Your task to perform on an android device: What's a good restaurant in Los Angeles? Image 0: 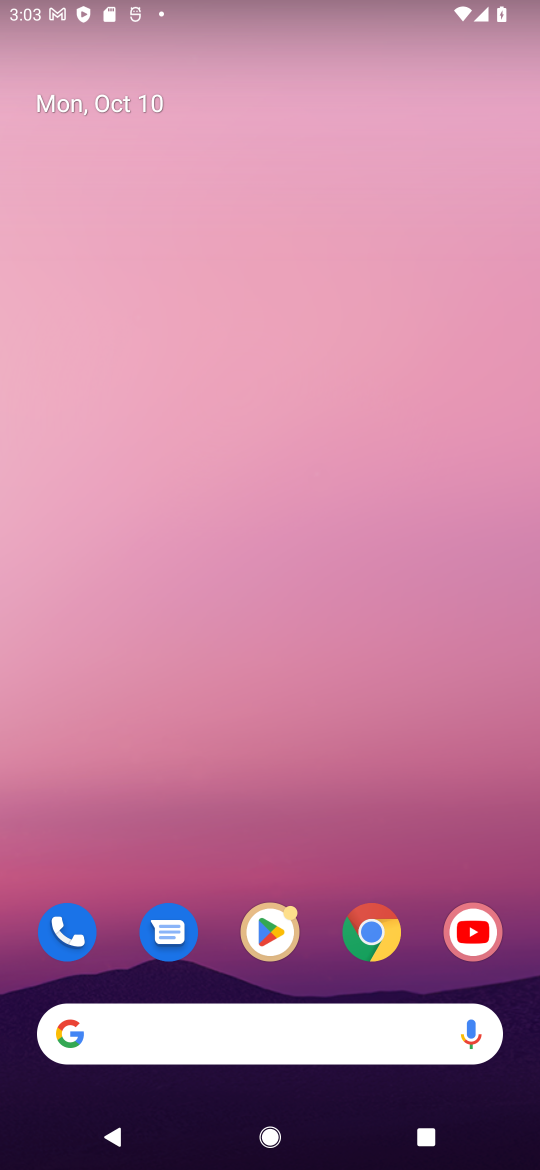
Step 0: click (340, 1029)
Your task to perform on an android device: What's a good restaurant in Los Angeles? Image 1: 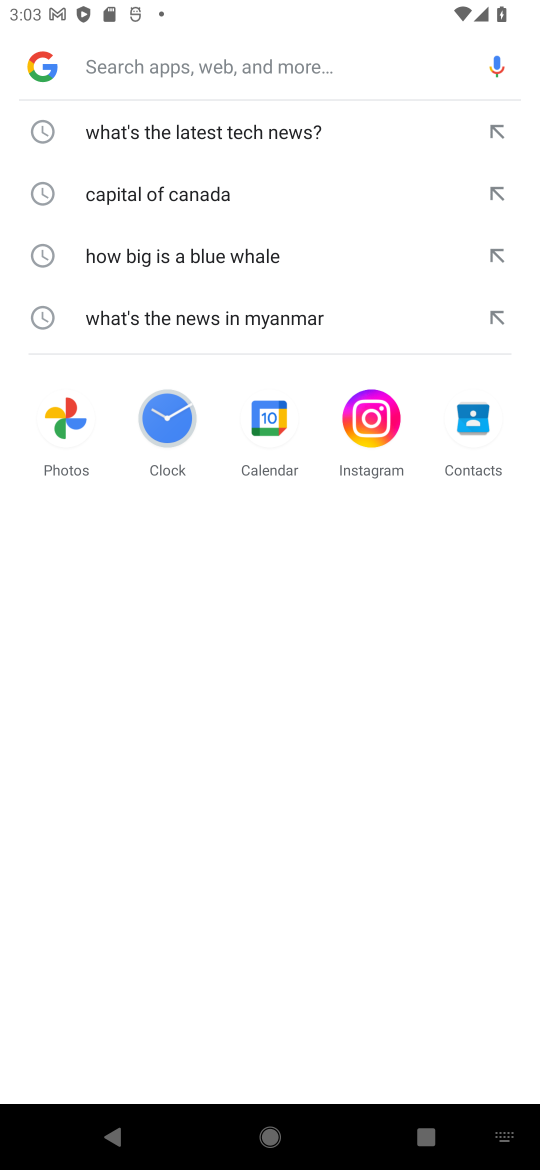
Step 1: type "What's a good restaurant in Los Angeles"
Your task to perform on an android device: What's a good restaurant in Los Angeles? Image 2: 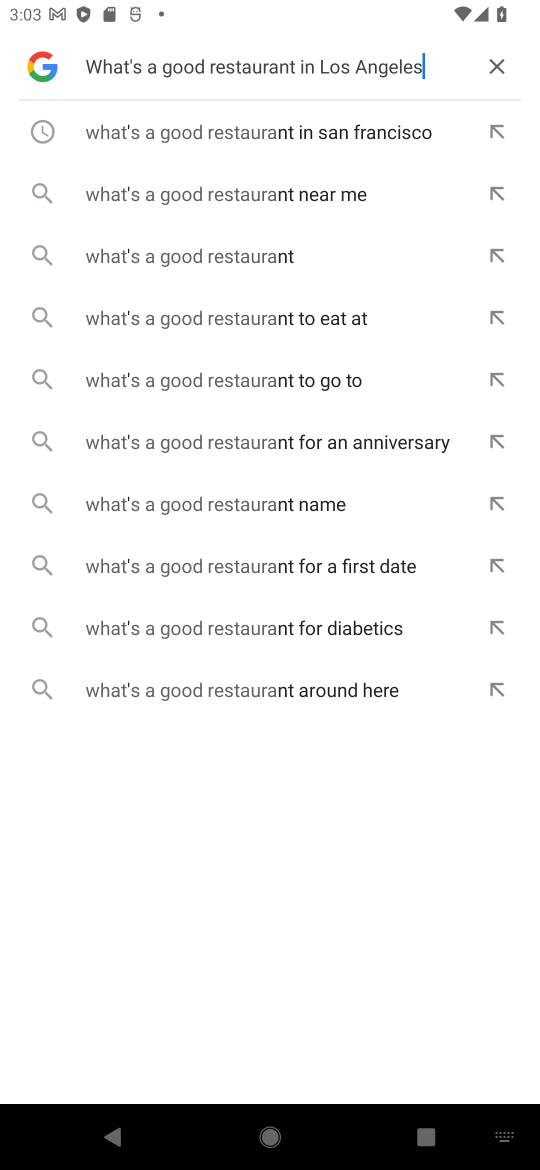
Step 2: press enter
Your task to perform on an android device: What's a good restaurant in Los Angeles? Image 3: 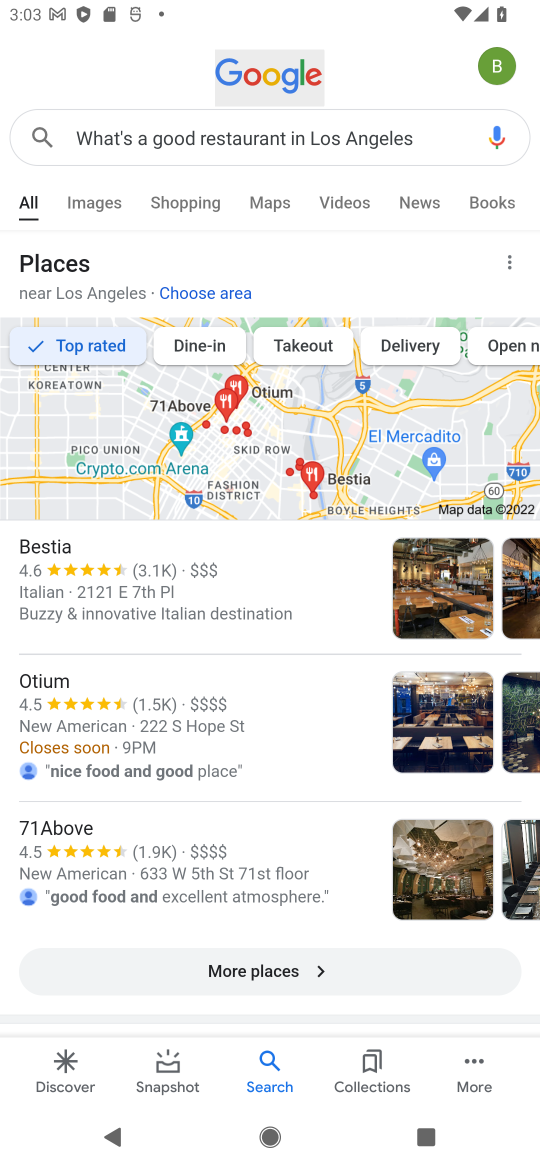
Step 3: click (241, 967)
Your task to perform on an android device: What's a good restaurant in Los Angeles? Image 4: 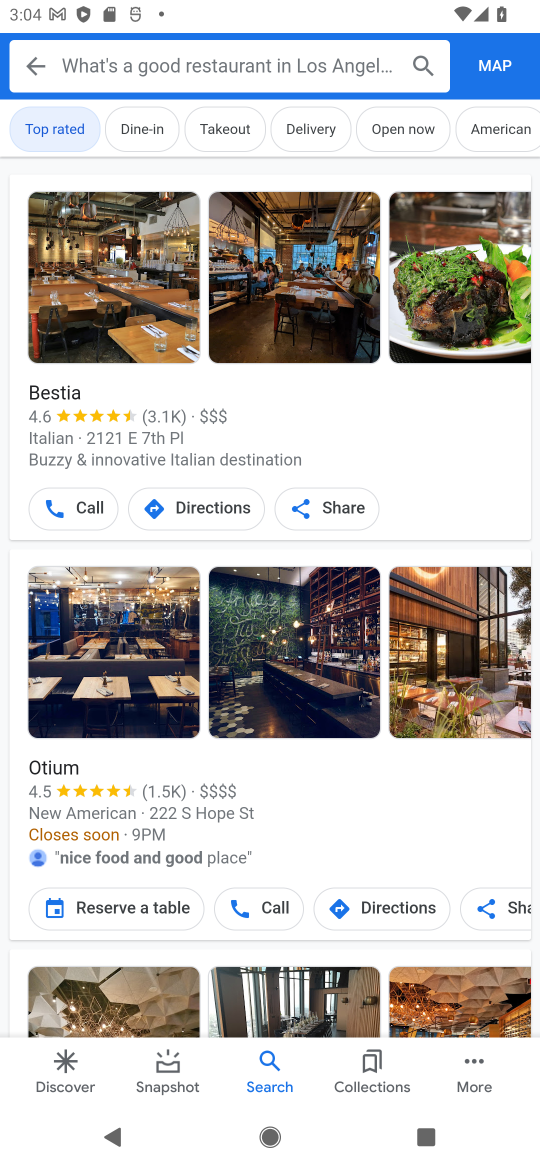
Step 4: task complete